Your task to perform on an android device: delete a single message in the gmail app Image 0: 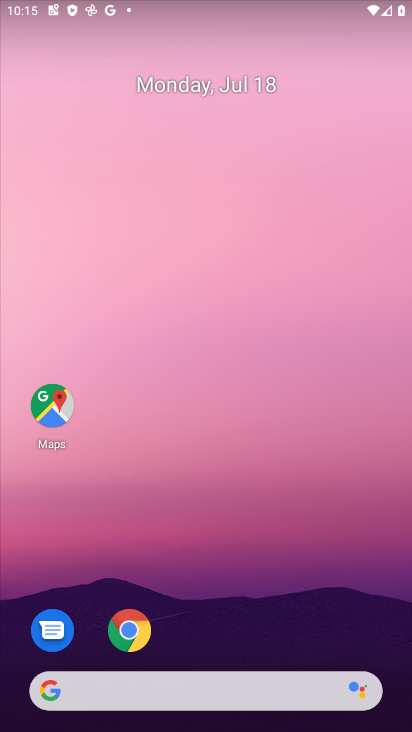
Step 0: drag from (285, 635) to (143, 0)
Your task to perform on an android device: delete a single message in the gmail app Image 1: 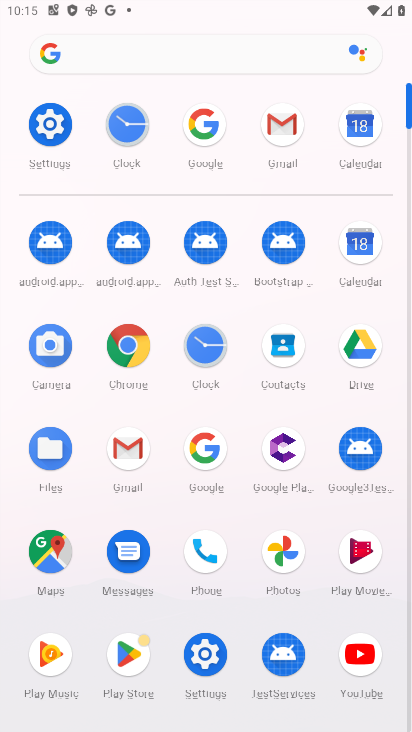
Step 1: click (145, 448)
Your task to perform on an android device: delete a single message in the gmail app Image 2: 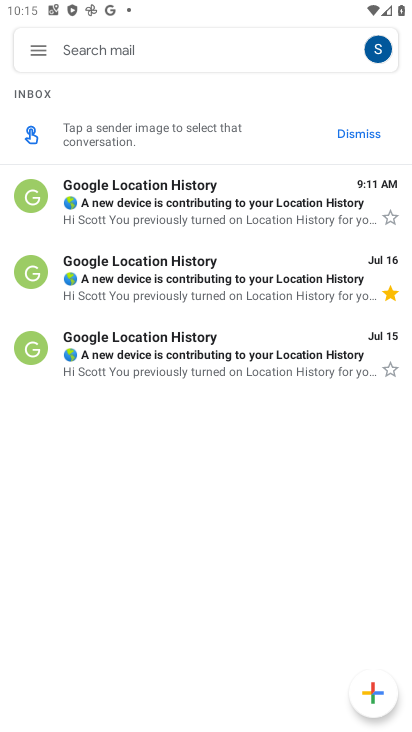
Step 2: task complete